Your task to perform on an android device: change keyboard looks Image 0: 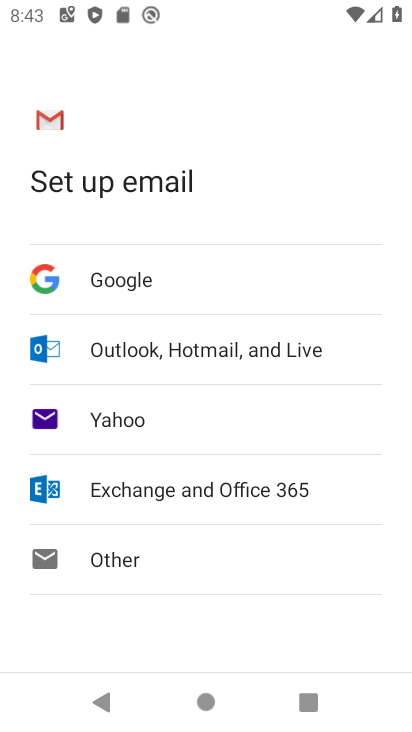
Step 0: press home button
Your task to perform on an android device: change keyboard looks Image 1: 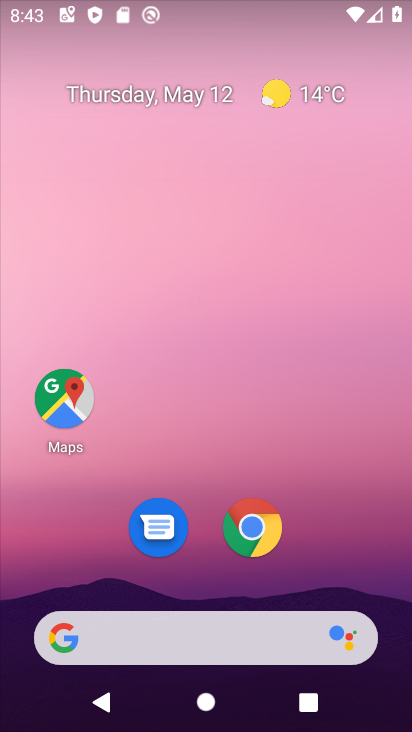
Step 1: drag from (306, 563) to (251, 61)
Your task to perform on an android device: change keyboard looks Image 2: 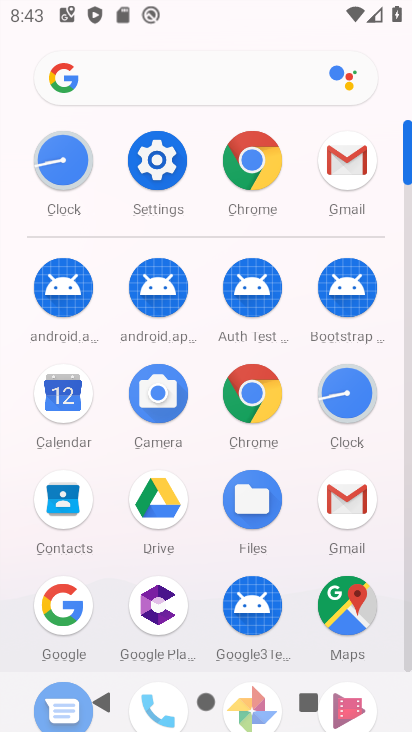
Step 2: click (138, 167)
Your task to perform on an android device: change keyboard looks Image 3: 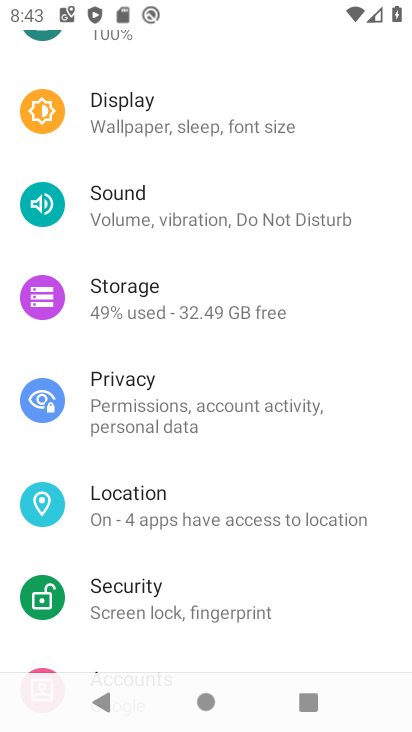
Step 3: drag from (213, 581) to (227, 254)
Your task to perform on an android device: change keyboard looks Image 4: 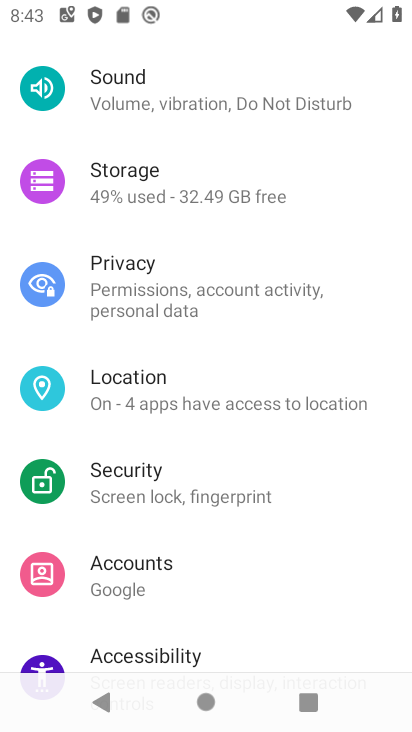
Step 4: drag from (241, 563) to (258, 186)
Your task to perform on an android device: change keyboard looks Image 5: 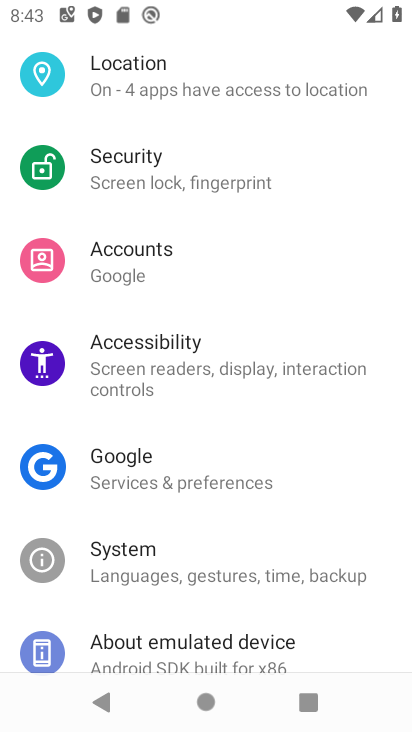
Step 5: drag from (253, 603) to (257, 268)
Your task to perform on an android device: change keyboard looks Image 6: 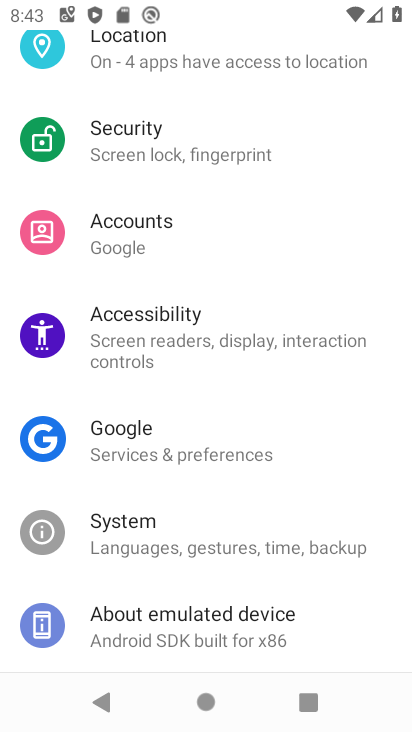
Step 6: drag from (265, 522) to (271, 196)
Your task to perform on an android device: change keyboard looks Image 7: 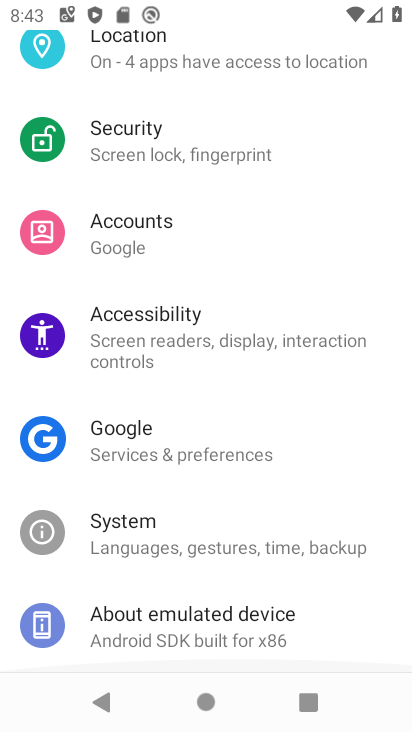
Step 7: click (271, 196)
Your task to perform on an android device: change keyboard looks Image 8: 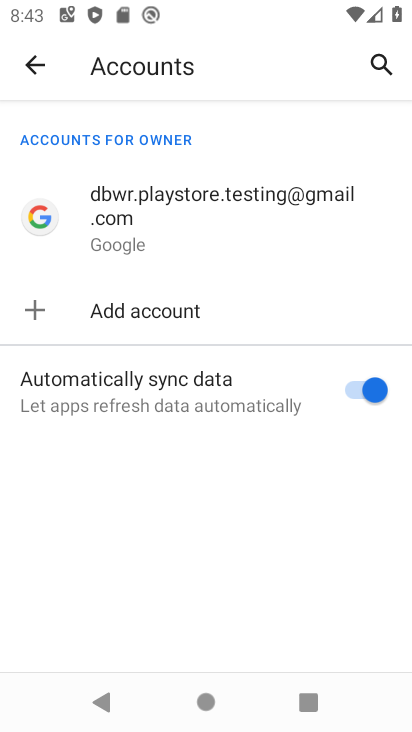
Step 8: click (36, 62)
Your task to perform on an android device: change keyboard looks Image 9: 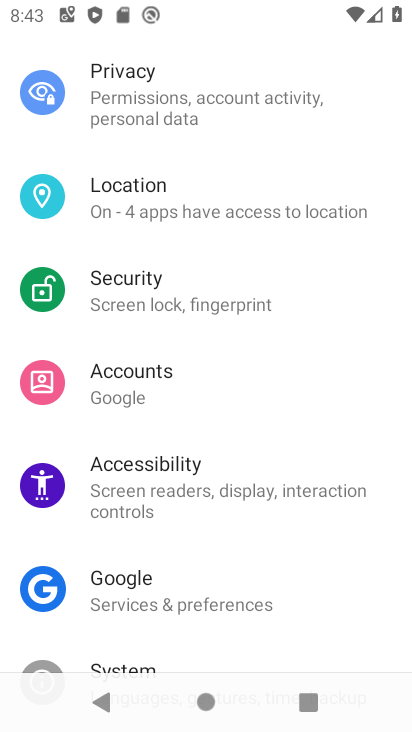
Step 9: drag from (209, 611) to (216, 397)
Your task to perform on an android device: change keyboard looks Image 10: 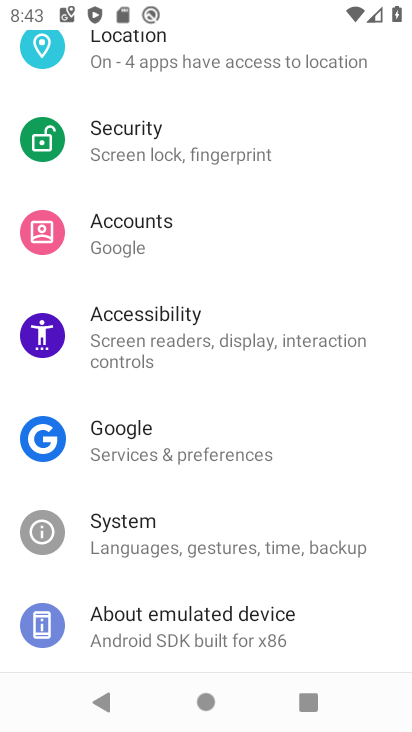
Step 10: click (202, 517)
Your task to perform on an android device: change keyboard looks Image 11: 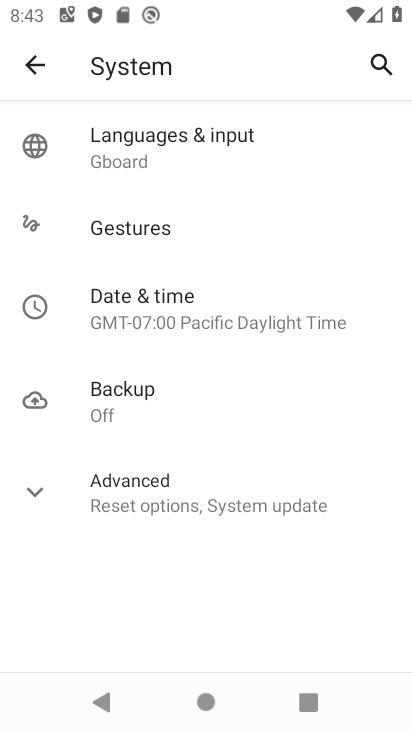
Step 11: click (164, 150)
Your task to perform on an android device: change keyboard looks Image 12: 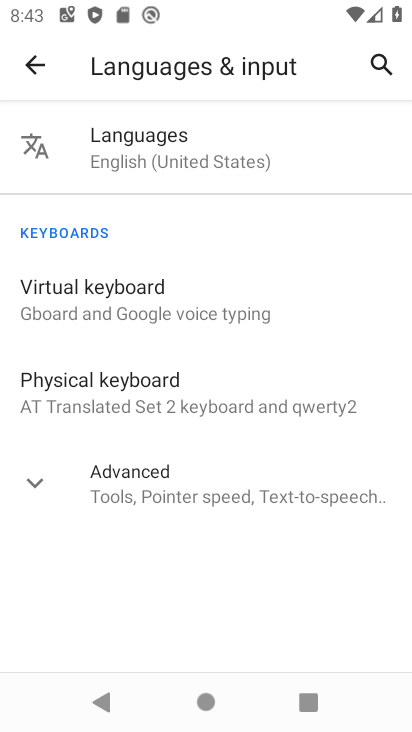
Step 12: click (154, 289)
Your task to perform on an android device: change keyboard looks Image 13: 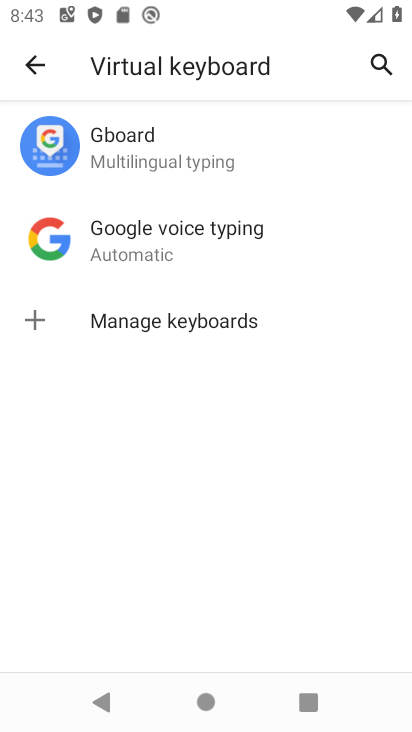
Step 13: click (144, 174)
Your task to perform on an android device: change keyboard looks Image 14: 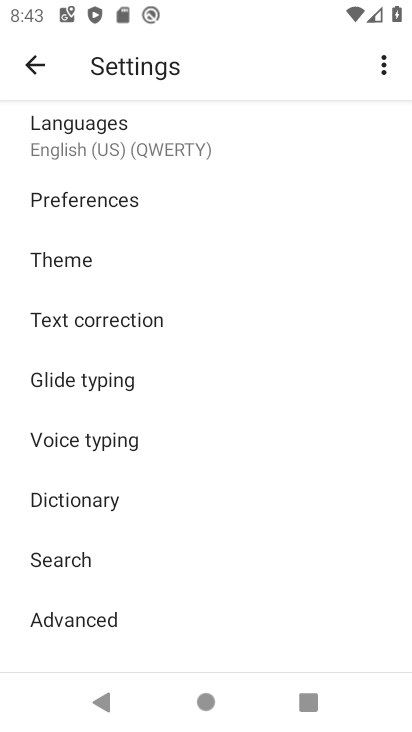
Step 14: click (130, 264)
Your task to perform on an android device: change keyboard looks Image 15: 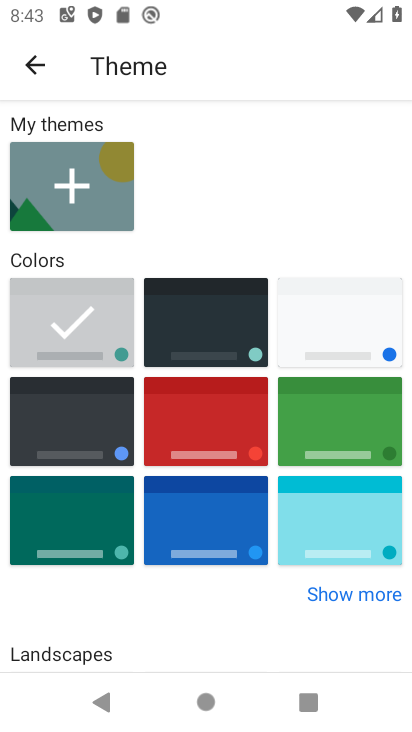
Step 15: click (194, 328)
Your task to perform on an android device: change keyboard looks Image 16: 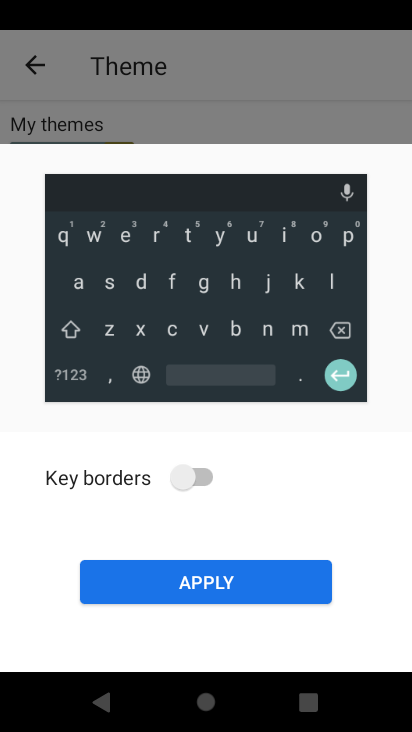
Step 16: click (247, 589)
Your task to perform on an android device: change keyboard looks Image 17: 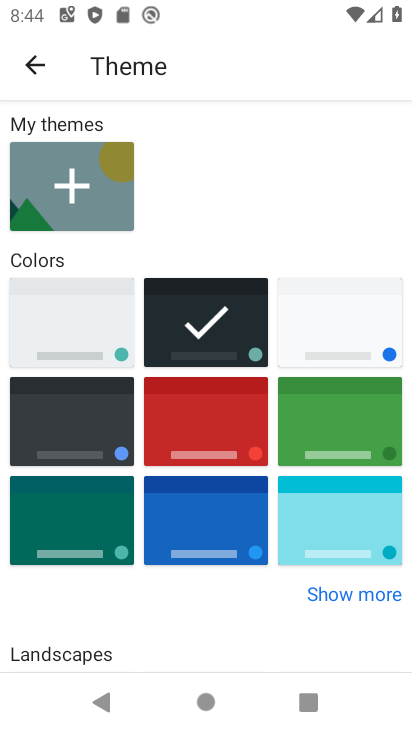
Step 17: task complete